Your task to perform on an android device: toggle priority inbox in the gmail app Image 0: 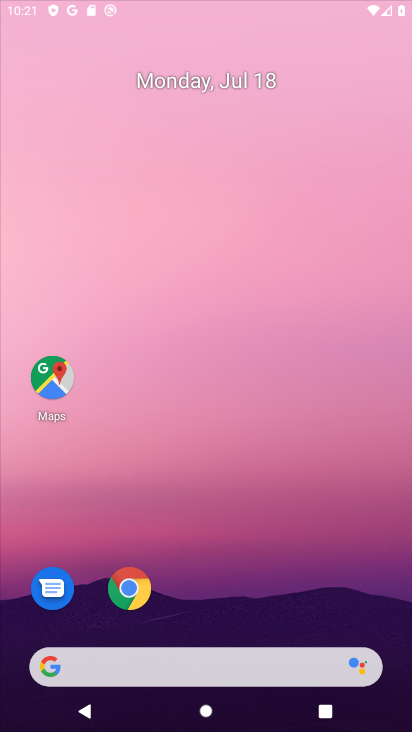
Step 0: press home button
Your task to perform on an android device: toggle priority inbox in the gmail app Image 1: 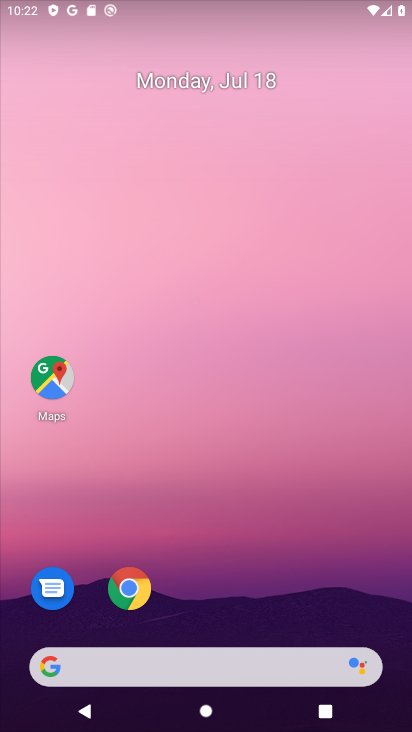
Step 1: drag from (179, 689) to (241, 71)
Your task to perform on an android device: toggle priority inbox in the gmail app Image 2: 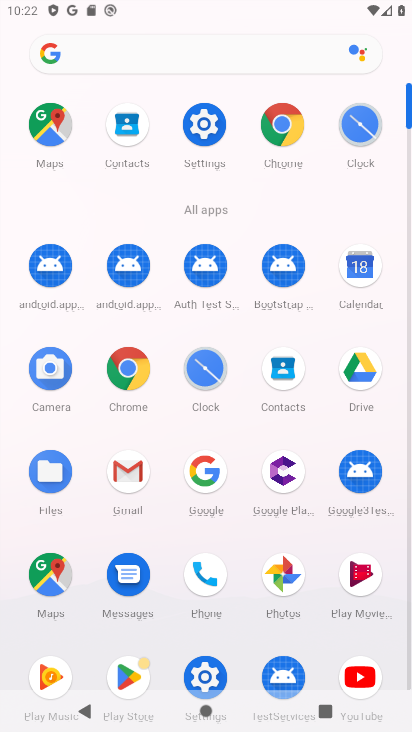
Step 2: click (106, 489)
Your task to perform on an android device: toggle priority inbox in the gmail app Image 3: 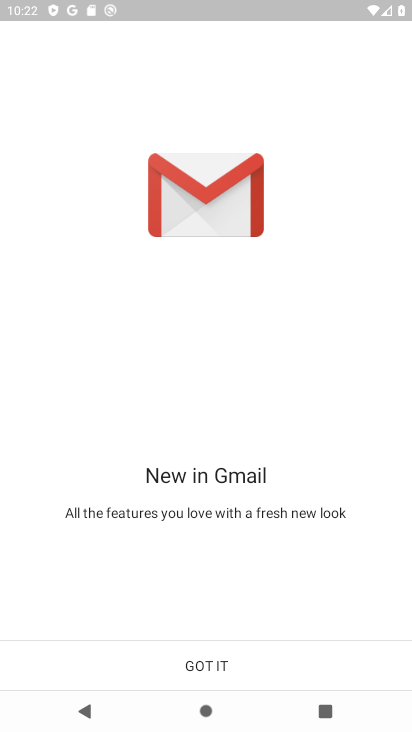
Step 3: click (198, 687)
Your task to perform on an android device: toggle priority inbox in the gmail app Image 4: 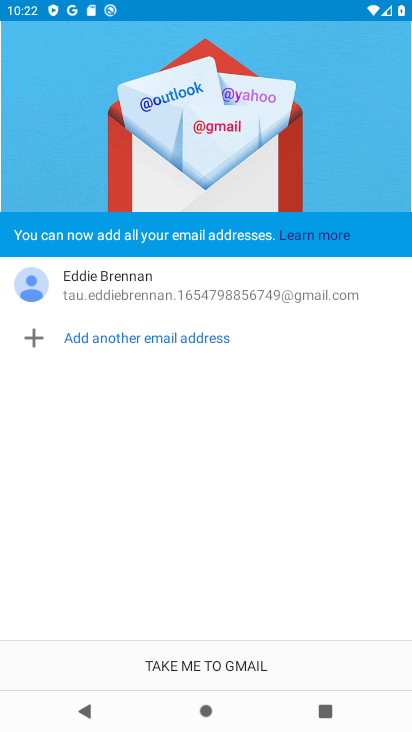
Step 4: click (196, 675)
Your task to perform on an android device: toggle priority inbox in the gmail app Image 5: 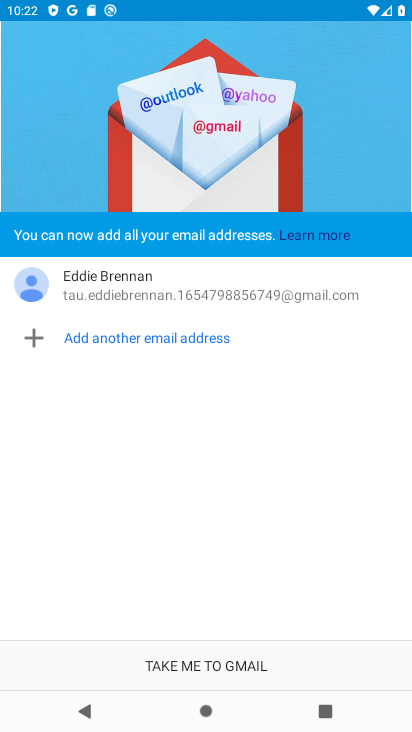
Step 5: click (196, 675)
Your task to perform on an android device: toggle priority inbox in the gmail app Image 6: 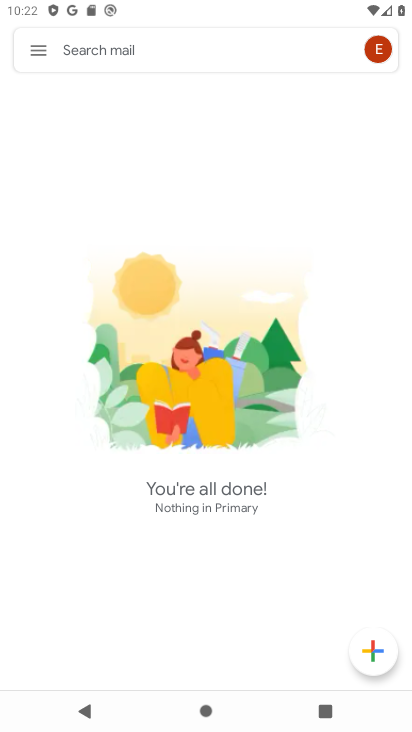
Step 6: task complete